Your task to perform on an android device: What's on my calendar today? Image 0: 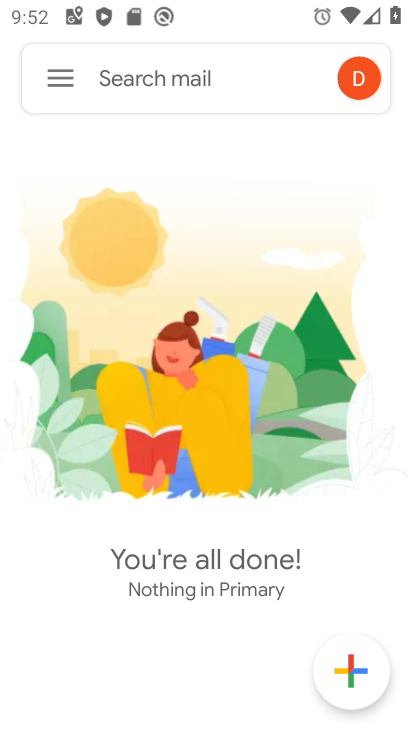
Step 0: press home button
Your task to perform on an android device: What's on my calendar today? Image 1: 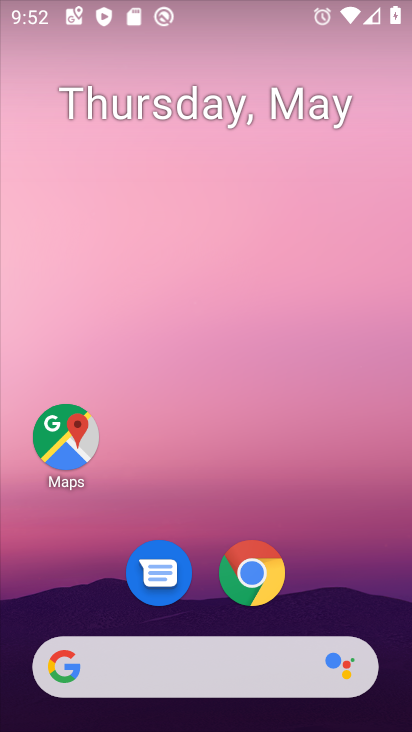
Step 1: drag from (204, 610) to (204, 172)
Your task to perform on an android device: What's on my calendar today? Image 2: 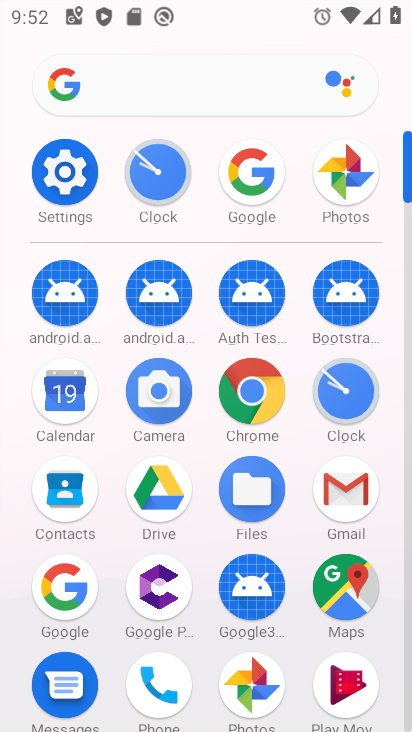
Step 2: click (71, 375)
Your task to perform on an android device: What's on my calendar today? Image 3: 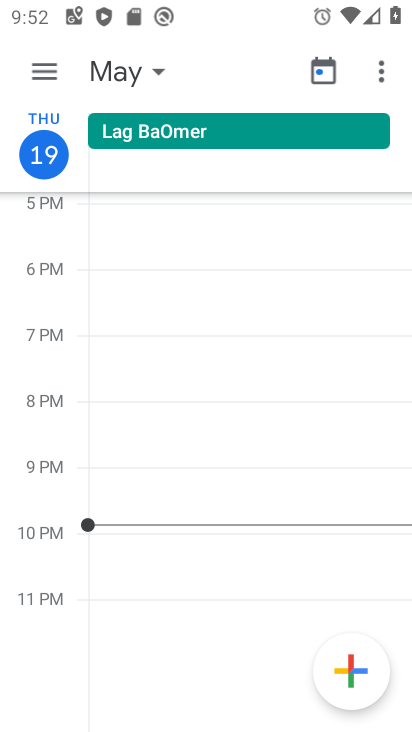
Step 3: click (149, 73)
Your task to perform on an android device: What's on my calendar today? Image 4: 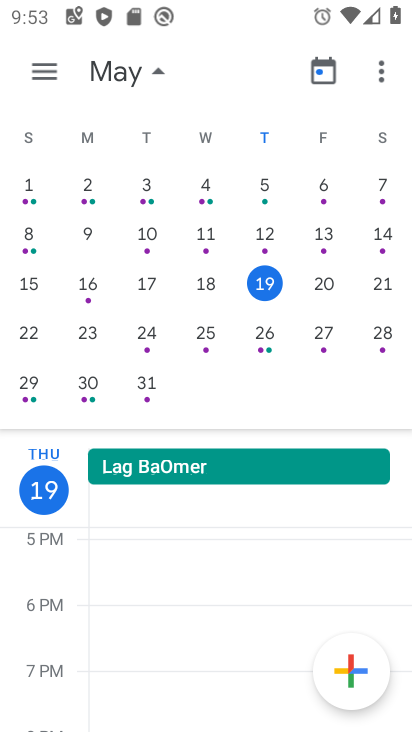
Step 4: click (257, 289)
Your task to perform on an android device: What's on my calendar today? Image 5: 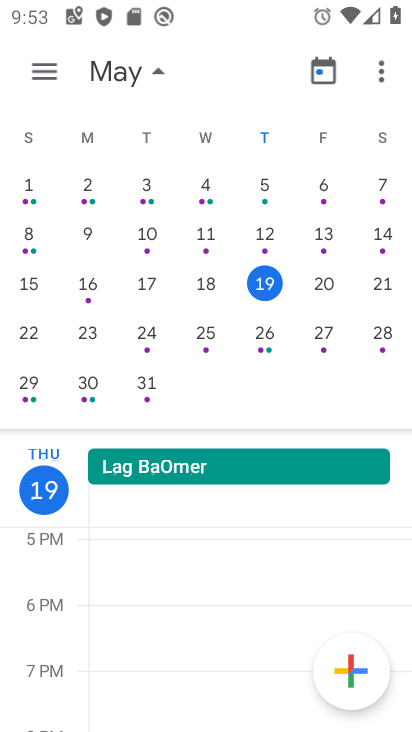
Step 5: task complete